Your task to perform on an android device: Open the Play Movies app and select the watchlist tab. Image 0: 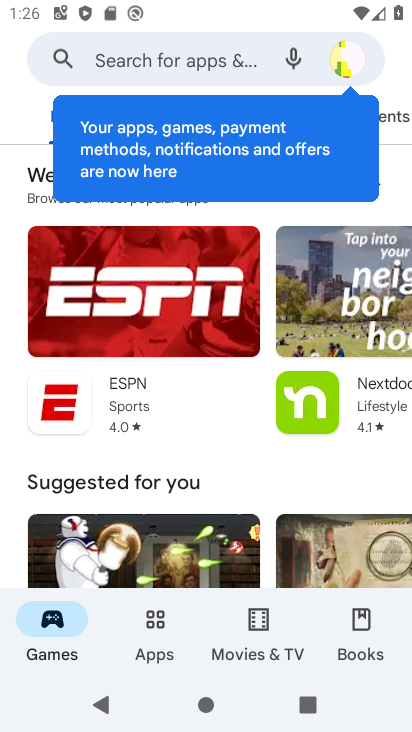
Step 0: press home button
Your task to perform on an android device: Open the Play Movies app and select the watchlist tab. Image 1: 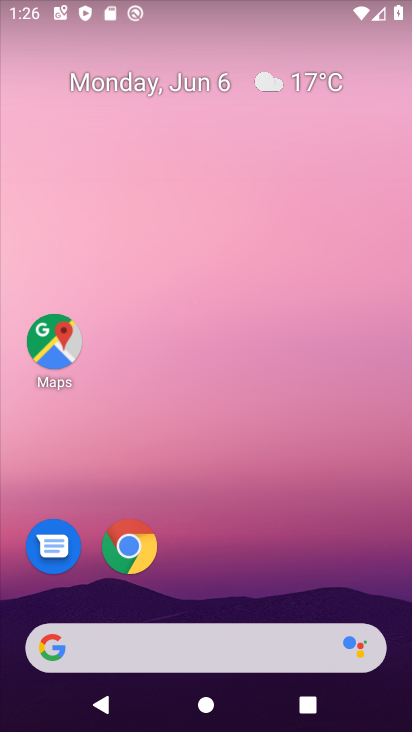
Step 1: drag from (341, 581) to (257, 48)
Your task to perform on an android device: Open the Play Movies app and select the watchlist tab. Image 2: 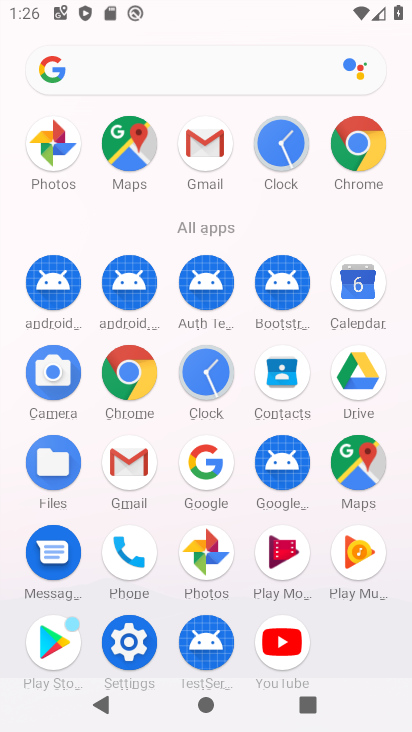
Step 2: click (289, 567)
Your task to perform on an android device: Open the Play Movies app and select the watchlist tab. Image 3: 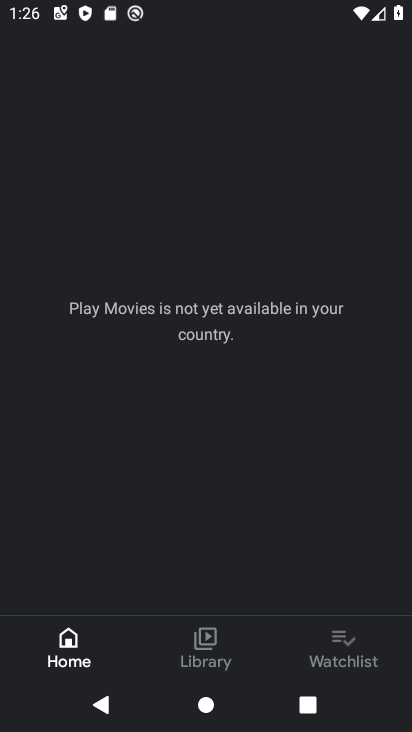
Step 3: click (327, 631)
Your task to perform on an android device: Open the Play Movies app and select the watchlist tab. Image 4: 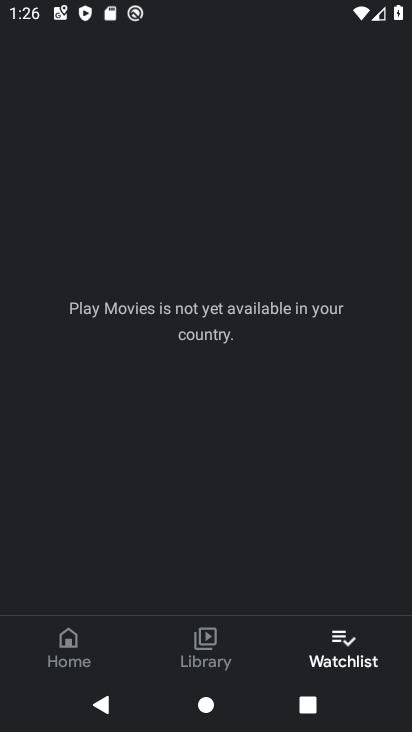
Step 4: task complete